Your task to perform on an android device: refresh tabs in the chrome app Image 0: 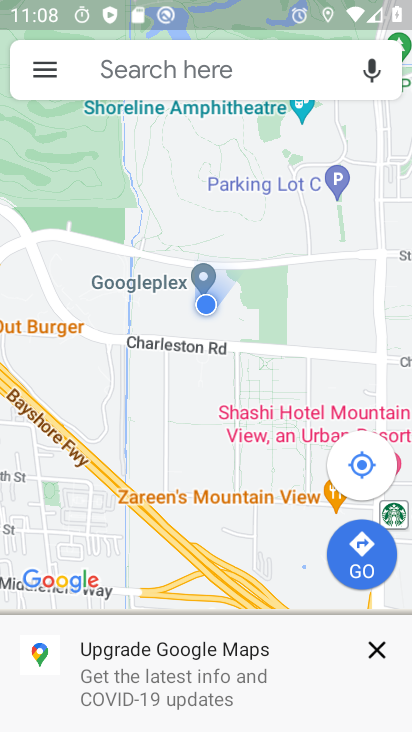
Step 0: press back button
Your task to perform on an android device: refresh tabs in the chrome app Image 1: 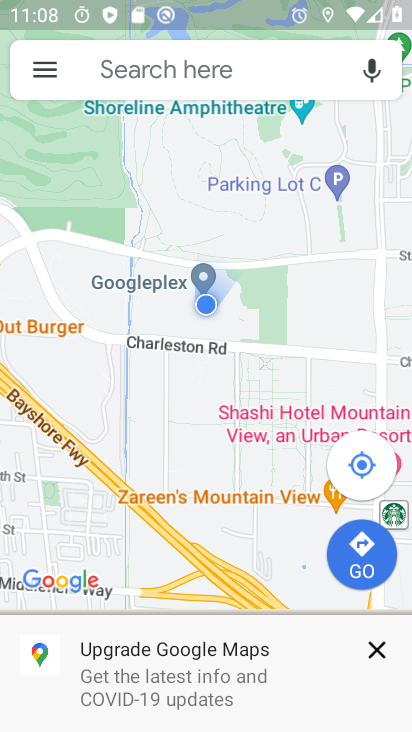
Step 1: press back button
Your task to perform on an android device: refresh tabs in the chrome app Image 2: 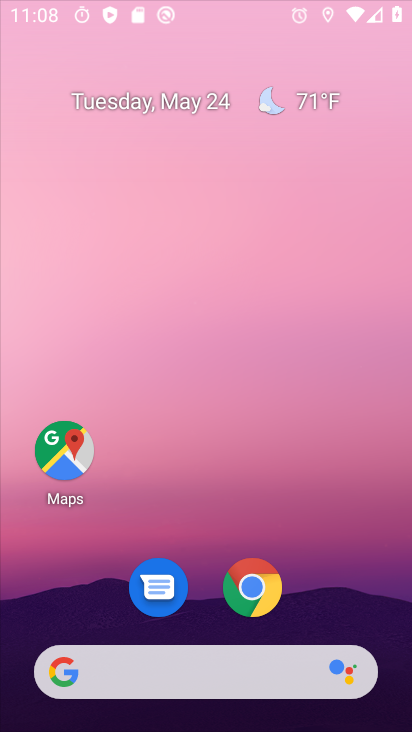
Step 2: press back button
Your task to perform on an android device: refresh tabs in the chrome app Image 3: 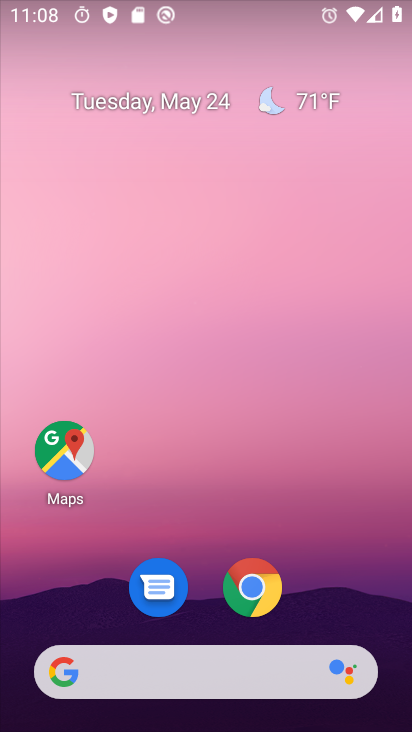
Step 3: drag from (366, 653) to (241, 25)
Your task to perform on an android device: refresh tabs in the chrome app Image 4: 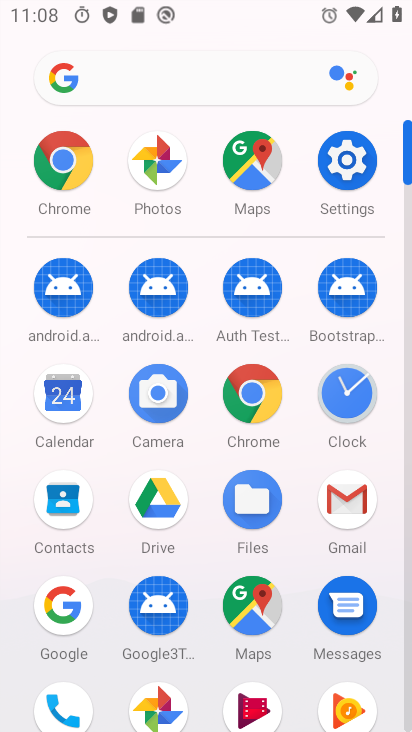
Step 4: click (48, 151)
Your task to perform on an android device: refresh tabs in the chrome app Image 5: 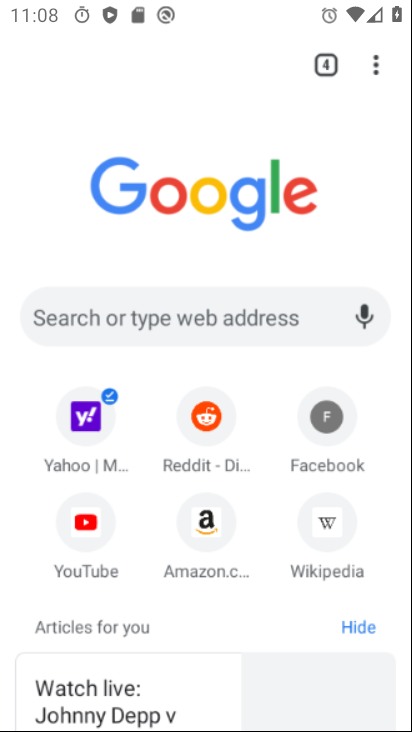
Step 5: click (64, 148)
Your task to perform on an android device: refresh tabs in the chrome app Image 6: 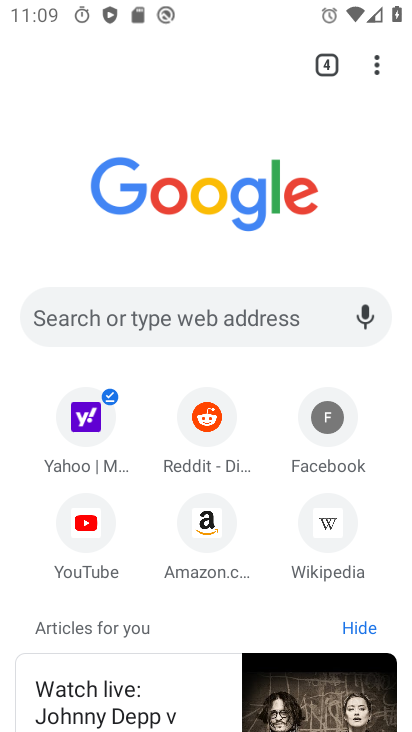
Step 6: click (370, 71)
Your task to perform on an android device: refresh tabs in the chrome app Image 7: 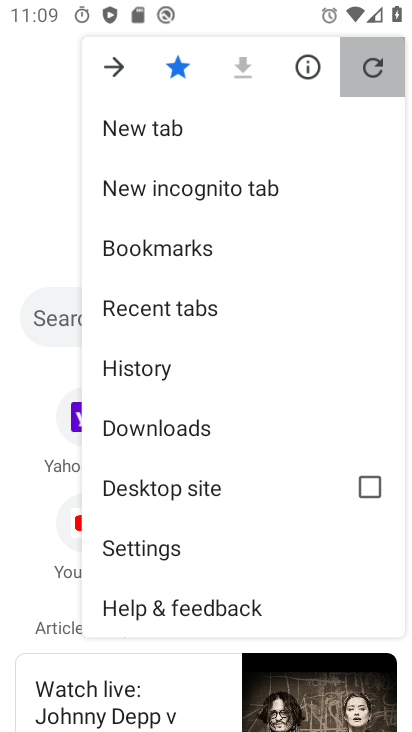
Step 7: click (369, 70)
Your task to perform on an android device: refresh tabs in the chrome app Image 8: 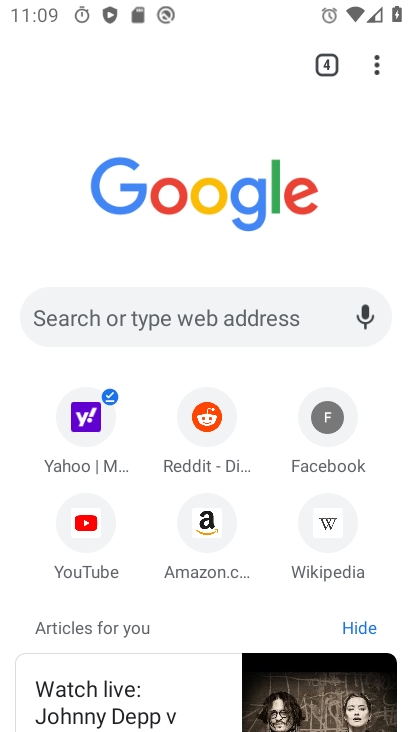
Step 8: click (373, 69)
Your task to perform on an android device: refresh tabs in the chrome app Image 9: 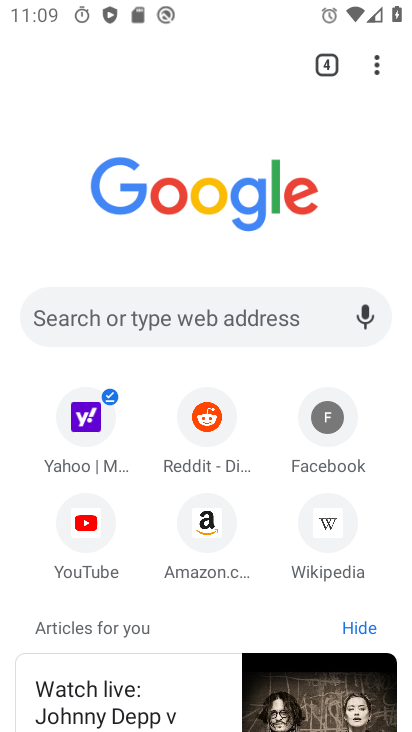
Step 9: task complete